Your task to perform on an android device: toggle pop-ups in chrome Image 0: 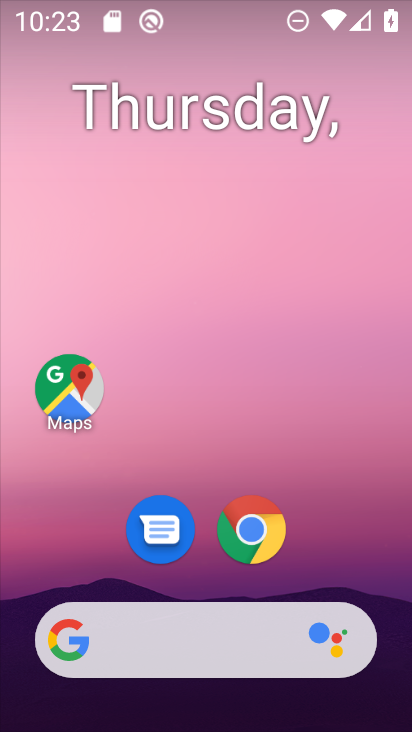
Step 0: click (251, 524)
Your task to perform on an android device: toggle pop-ups in chrome Image 1: 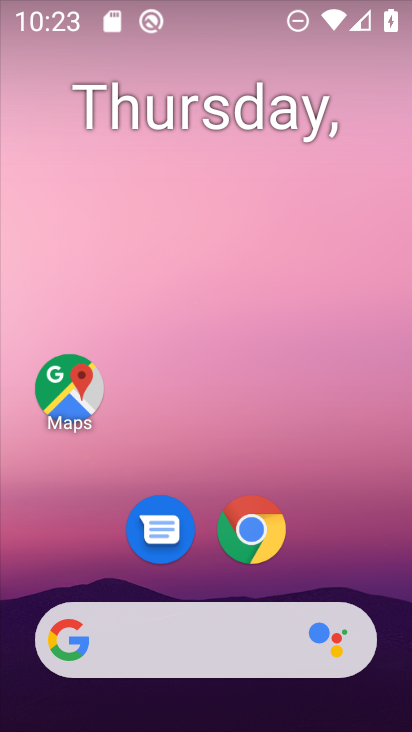
Step 1: click (251, 524)
Your task to perform on an android device: toggle pop-ups in chrome Image 2: 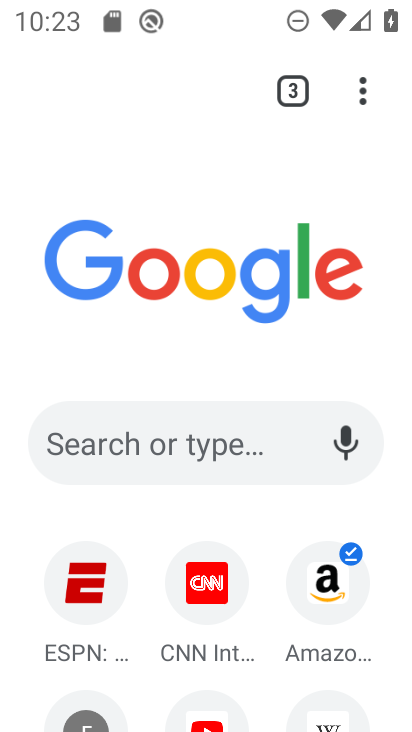
Step 2: click (364, 85)
Your task to perform on an android device: toggle pop-ups in chrome Image 3: 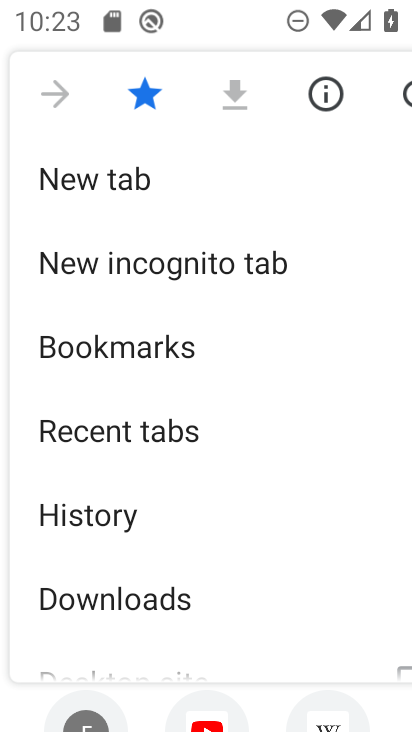
Step 3: drag from (243, 632) to (275, 154)
Your task to perform on an android device: toggle pop-ups in chrome Image 4: 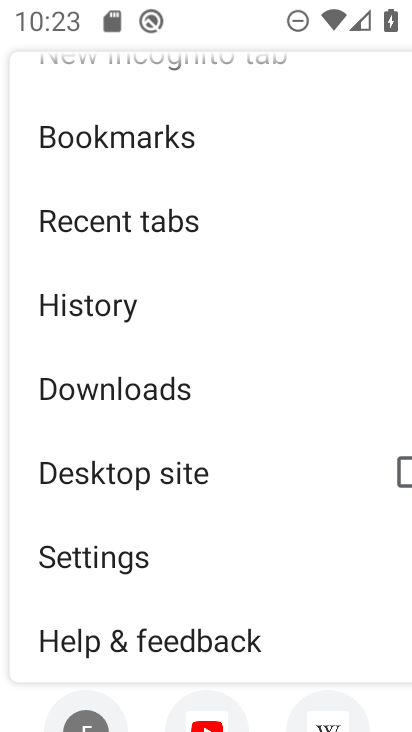
Step 4: click (101, 554)
Your task to perform on an android device: toggle pop-ups in chrome Image 5: 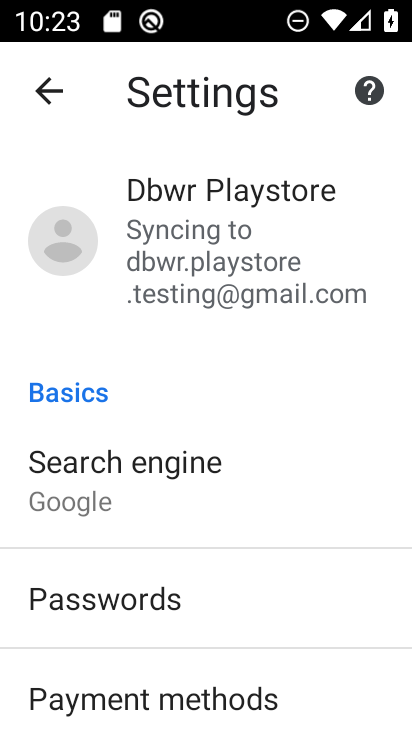
Step 5: drag from (329, 631) to (228, 24)
Your task to perform on an android device: toggle pop-ups in chrome Image 6: 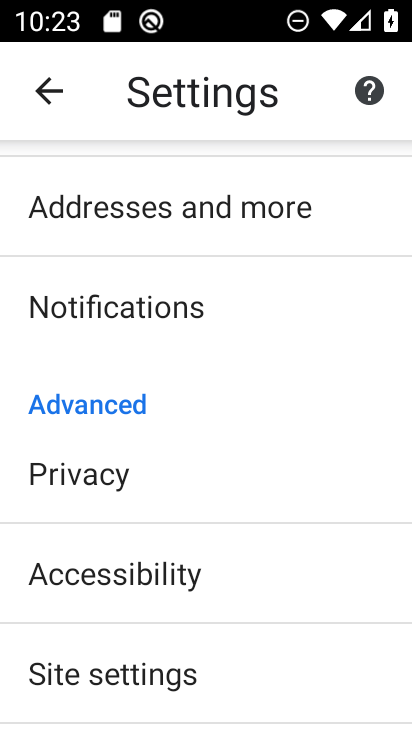
Step 6: drag from (351, 664) to (291, 50)
Your task to perform on an android device: toggle pop-ups in chrome Image 7: 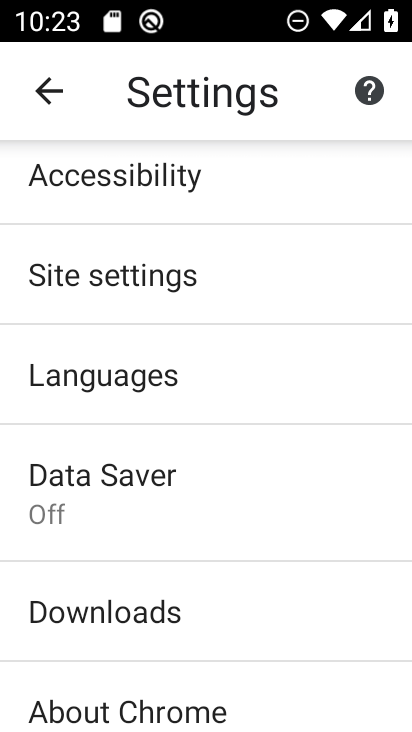
Step 7: click (235, 287)
Your task to perform on an android device: toggle pop-ups in chrome Image 8: 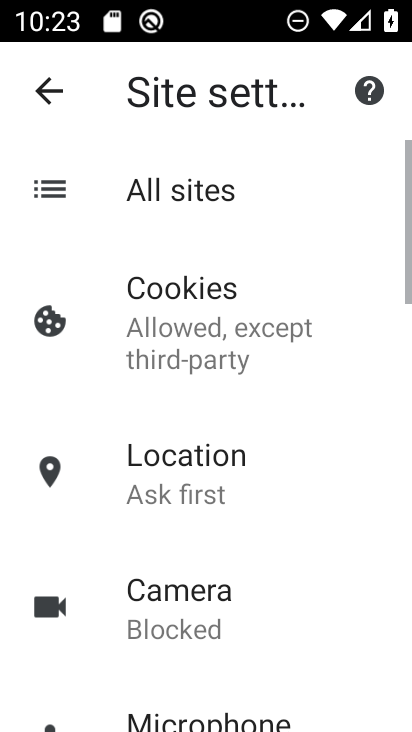
Step 8: drag from (286, 641) to (359, 34)
Your task to perform on an android device: toggle pop-ups in chrome Image 9: 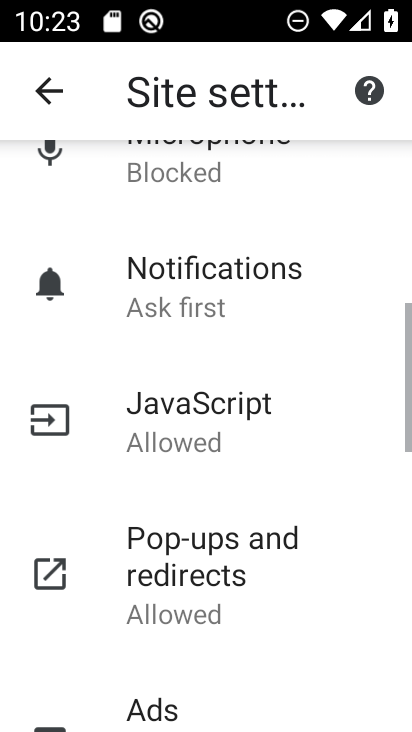
Step 9: click (219, 561)
Your task to perform on an android device: toggle pop-ups in chrome Image 10: 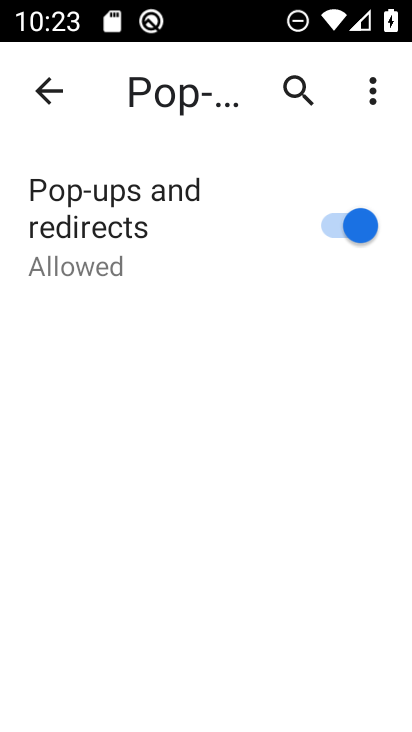
Step 10: click (355, 232)
Your task to perform on an android device: toggle pop-ups in chrome Image 11: 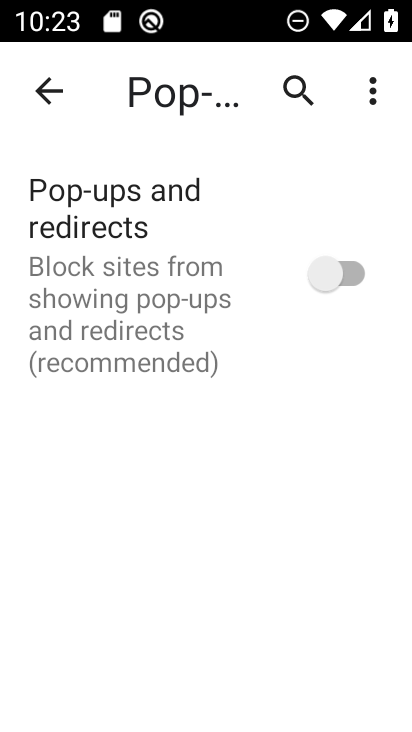
Step 11: task complete